Your task to perform on an android device: turn off notifications settings in the gmail app Image 0: 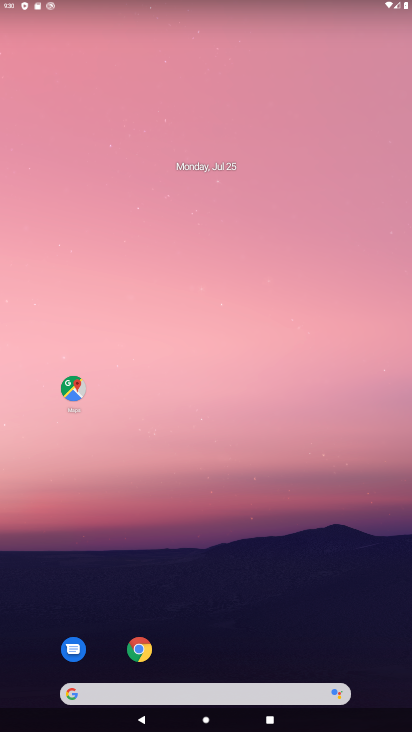
Step 0: drag from (205, 600) to (204, 3)
Your task to perform on an android device: turn off notifications settings in the gmail app Image 1: 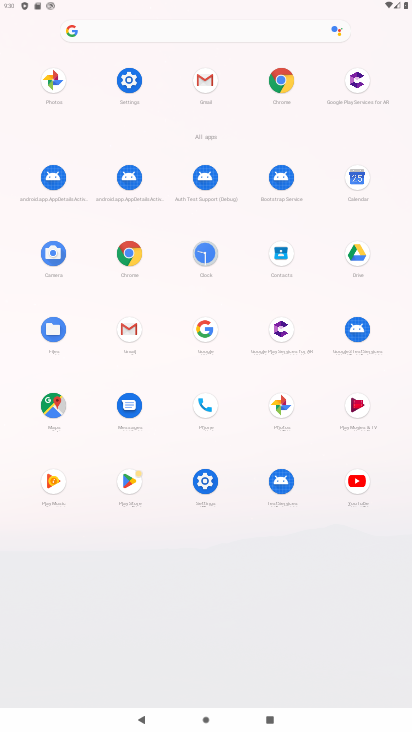
Step 1: click (130, 337)
Your task to perform on an android device: turn off notifications settings in the gmail app Image 2: 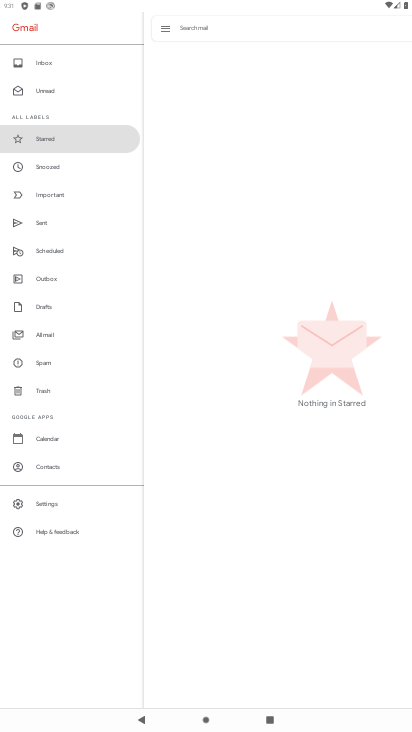
Step 2: click (56, 505)
Your task to perform on an android device: turn off notifications settings in the gmail app Image 3: 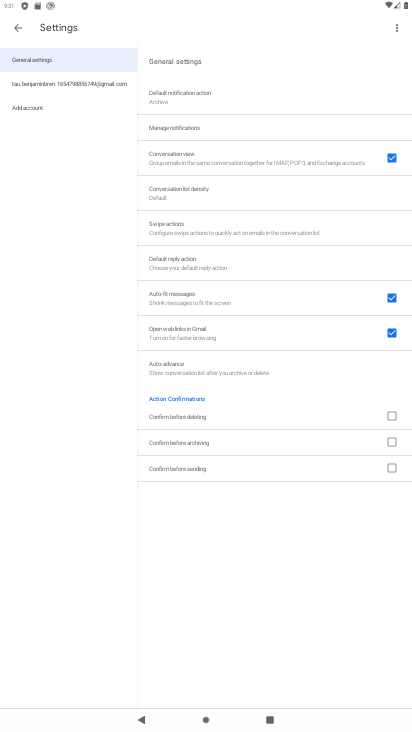
Step 3: click (197, 128)
Your task to perform on an android device: turn off notifications settings in the gmail app Image 4: 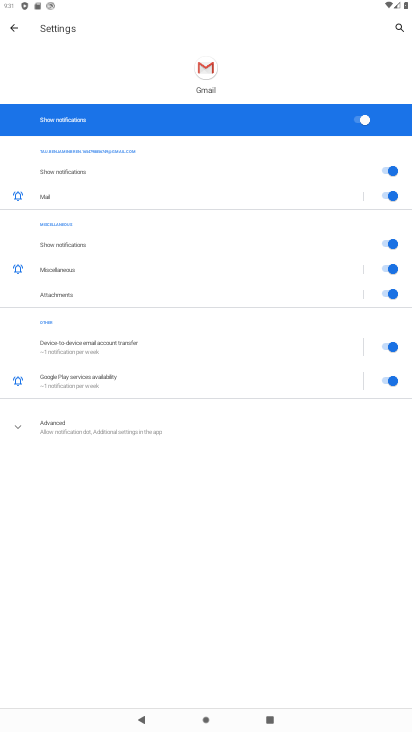
Step 4: click (345, 107)
Your task to perform on an android device: turn off notifications settings in the gmail app Image 5: 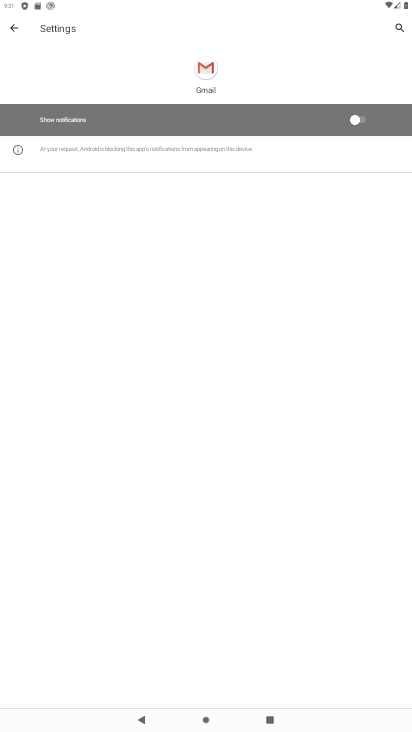
Step 5: task complete